Your task to perform on an android device: Go to CNN.com Image 0: 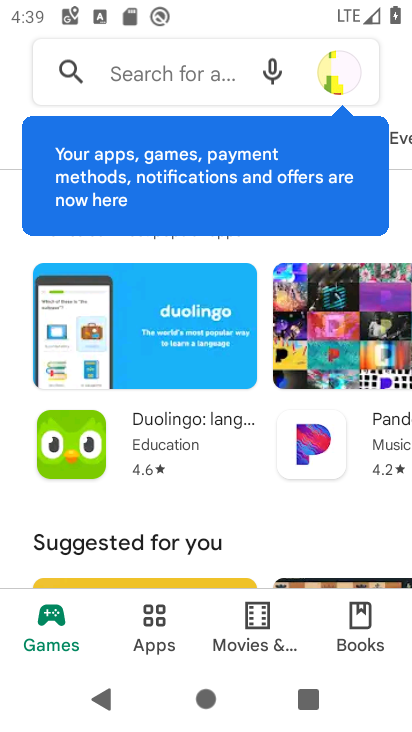
Step 0: press home button
Your task to perform on an android device: Go to CNN.com Image 1: 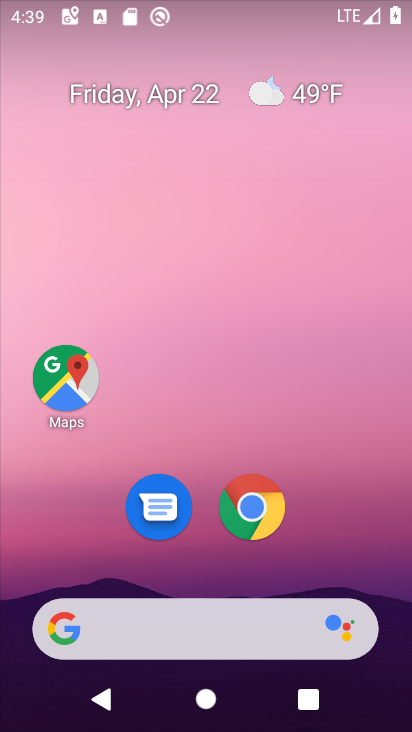
Step 1: click (249, 504)
Your task to perform on an android device: Go to CNN.com Image 2: 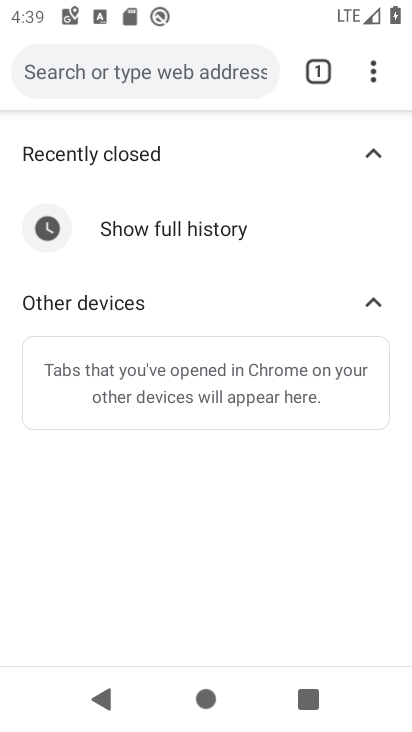
Step 2: click (122, 70)
Your task to perform on an android device: Go to CNN.com Image 3: 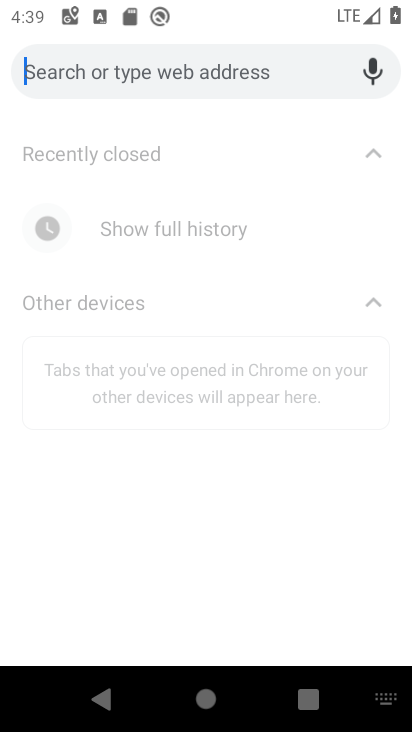
Step 3: type "cnn.com"
Your task to perform on an android device: Go to CNN.com Image 4: 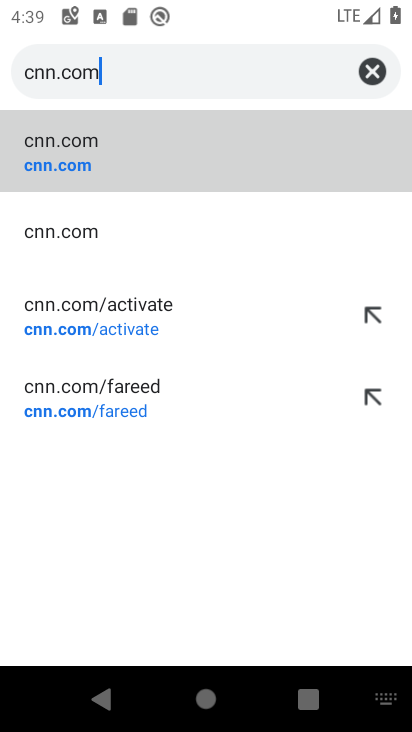
Step 4: click (82, 153)
Your task to perform on an android device: Go to CNN.com Image 5: 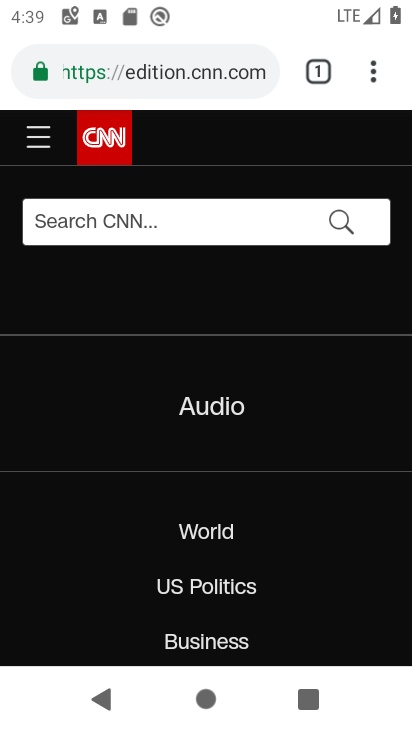
Step 5: task complete